Your task to perform on an android device: change the clock display to analog Image 0: 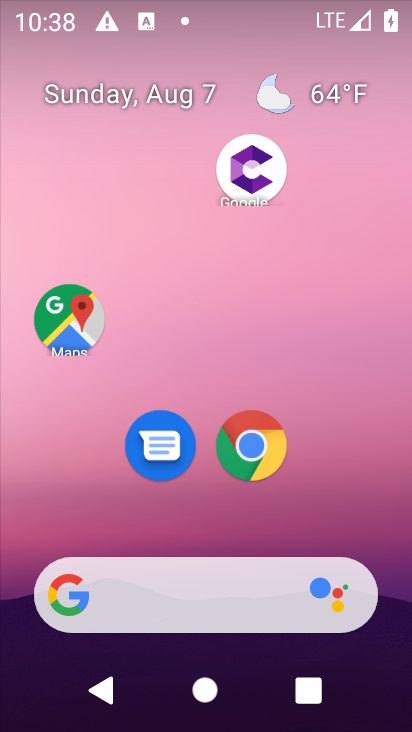
Step 0: press home button
Your task to perform on an android device: change the clock display to analog Image 1: 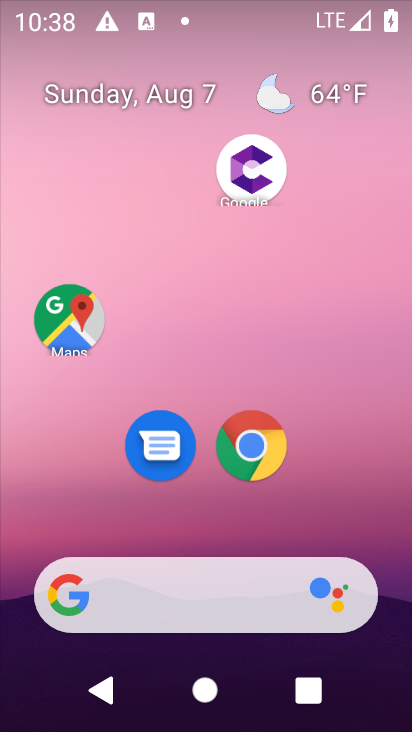
Step 1: drag from (206, 521) to (223, 96)
Your task to perform on an android device: change the clock display to analog Image 2: 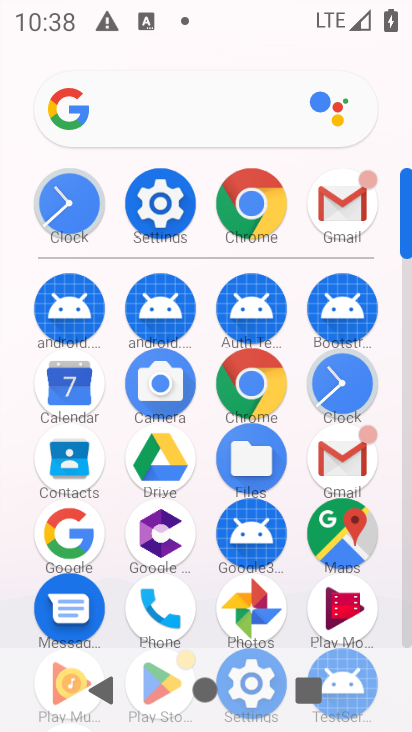
Step 2: click (338, 373)
Your task to perform on an android device: change the clock display to analog Image 3: 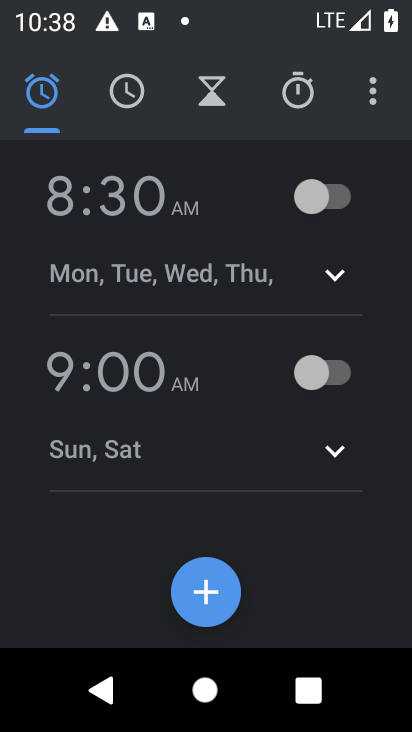
Step 3: click (372, 91)
Your task to perform on an android device: change the clock display to analog Image 4: 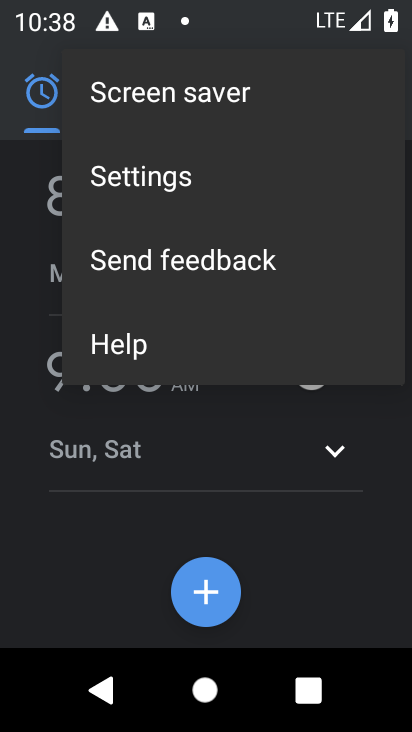
Step 4: click (198, 183)
Your task to perform on an android device: change the clock display to analog Image 5: 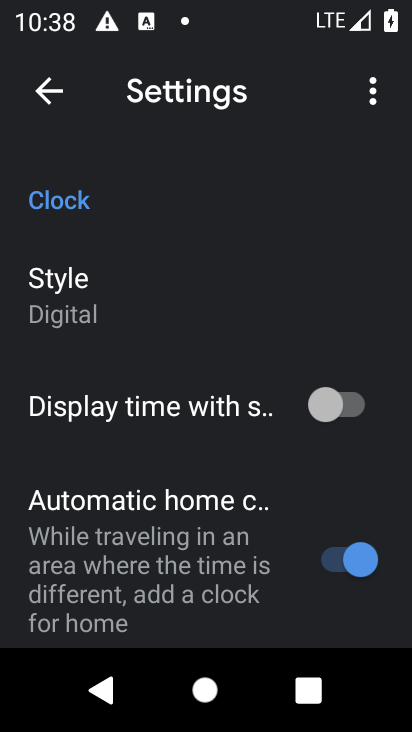
Step 5: click (124, 304)
Your task to perform on an android device: change the clock display to analog Image 6: 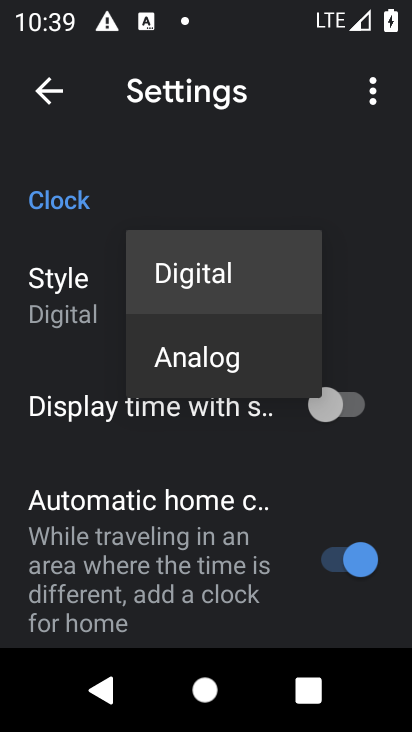
Step 6: click (203, 365)
Your task to perform on an android device: change the clock display to analog Image 7: 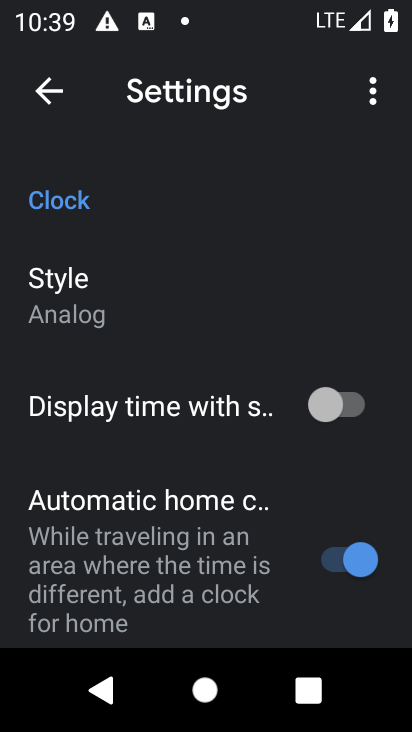
Step 7: task complete